Your task to perform on an android device: Open the calendar and show me this week's events Image 0: 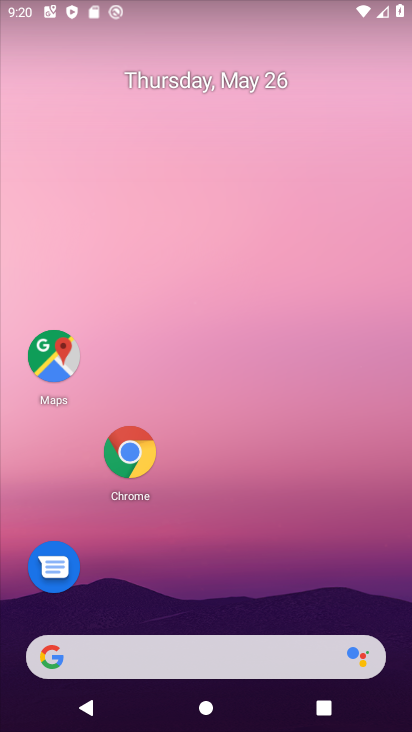
Step 0: press home button
Your task to perform on an android device: Open the calendar and show me this week's events Image 1: 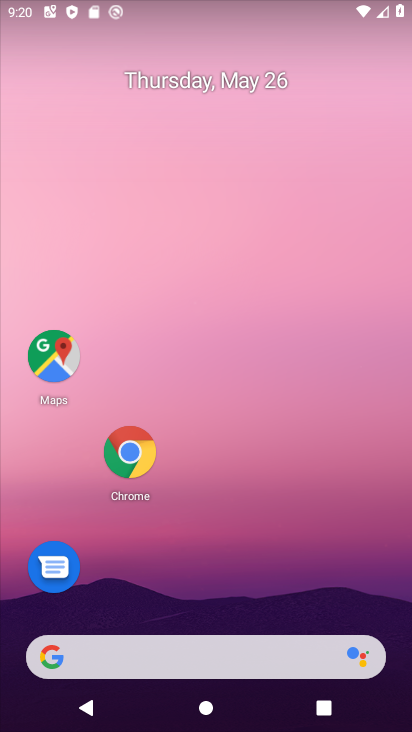
Step 1: drag from (136, 652) to (305, 91)
Your task to perform on an android device: Open the calendar and show me this week's events Image 2: 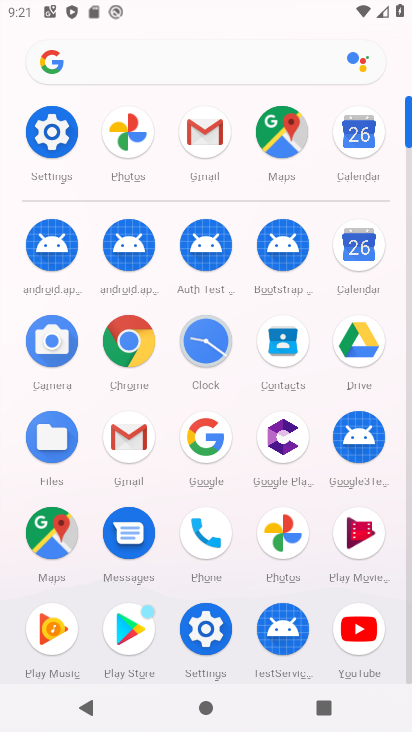
Step 2: click (353, 261)
Your task to perform on an android device: Open the calendar and show me this week's events Image 3: 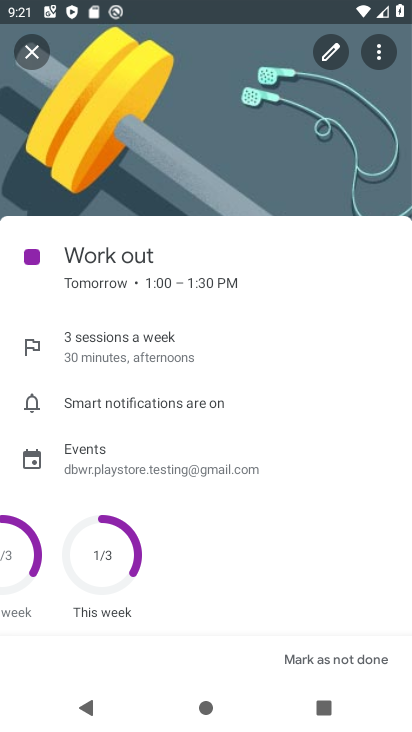
Step 3: click (28, 52)
Your task to perform on an android device: Open the calendar and show me this week's events Image 4: 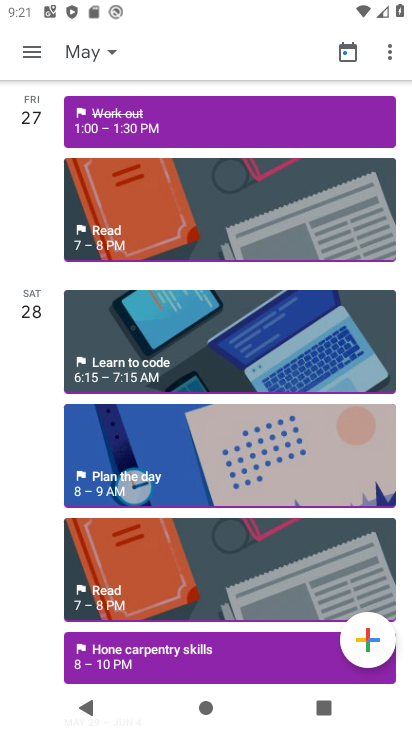
Step 4: click (85, 56)
Your task to perform on an android device: Open the calendar and show me this week's events Image 5: 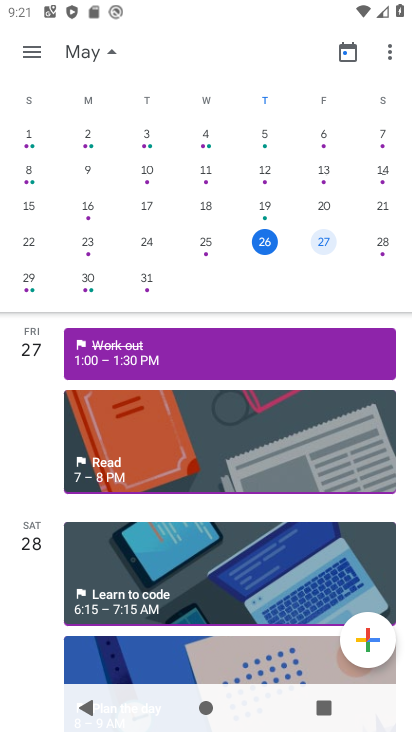
Step 5: click (266, 246)
Your task to perform on an android device: Open the calendar and show me this week's events Image 6: 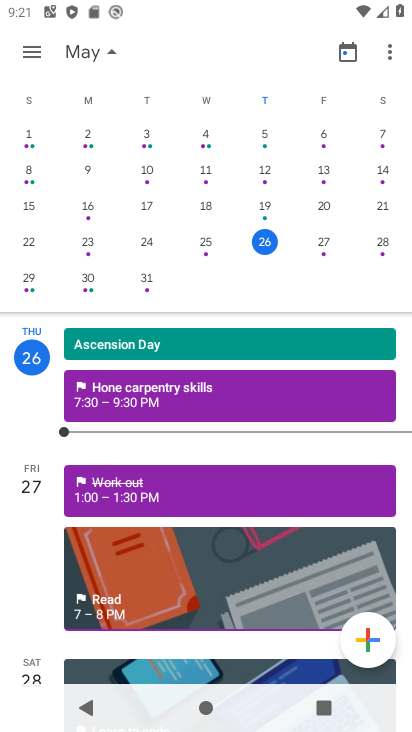
Step 6: click (22, 56)
Your task to perform on an android device: Open the calendar and show me this week's events Image 7: 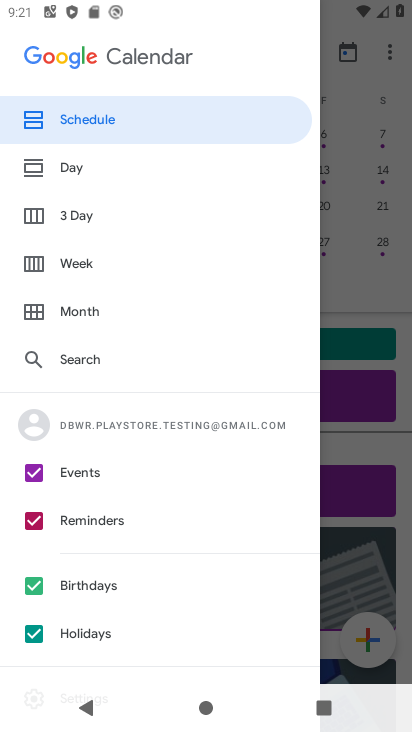
Step 7: click (81, 264)
Your task to perform on an android device: Open the calendar and show me this week's events Image 8: 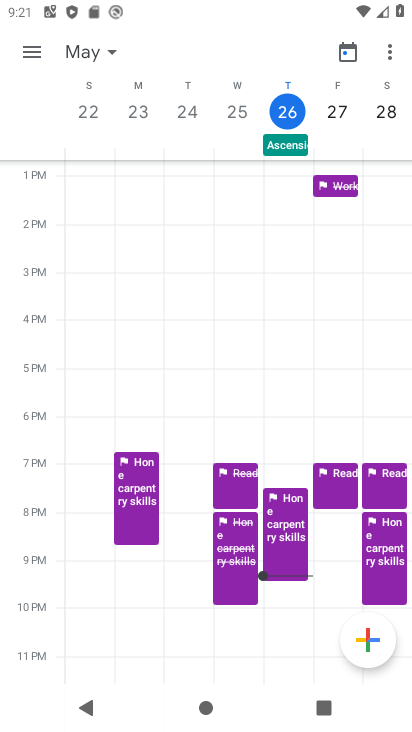
Step 8: click (37, 54)
Your task to perform on an android device: Open the calendar and show me this week's events Image 9: 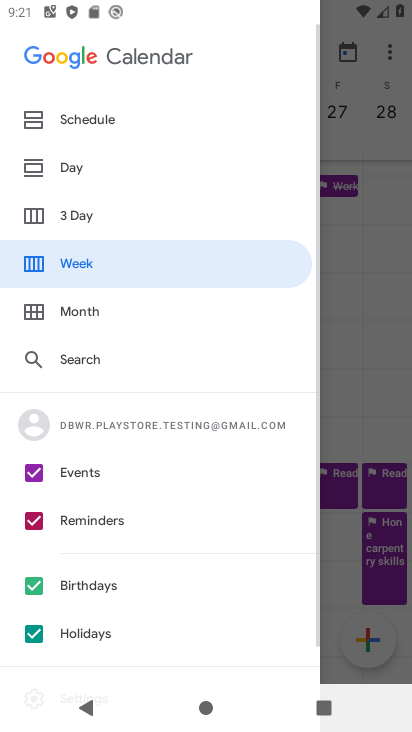
Step 9: click (97, 120)
Your task to perform on an android device: Open the calendar and show me this week's events Image 10: 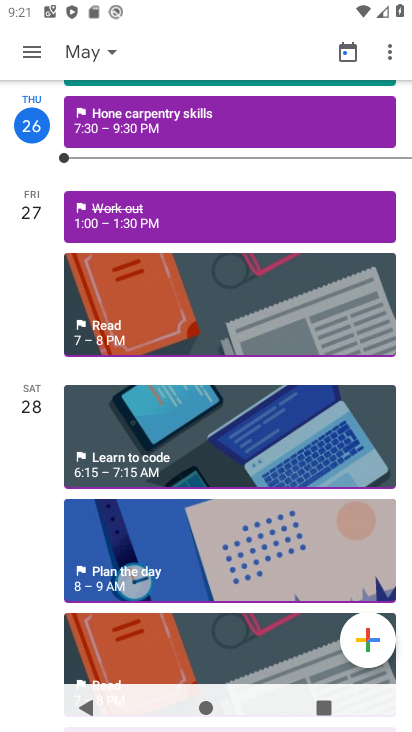
Step 10: click (165, 222)
Your task to perform on an android device: Open the calendar and show me this week's events Image 11: 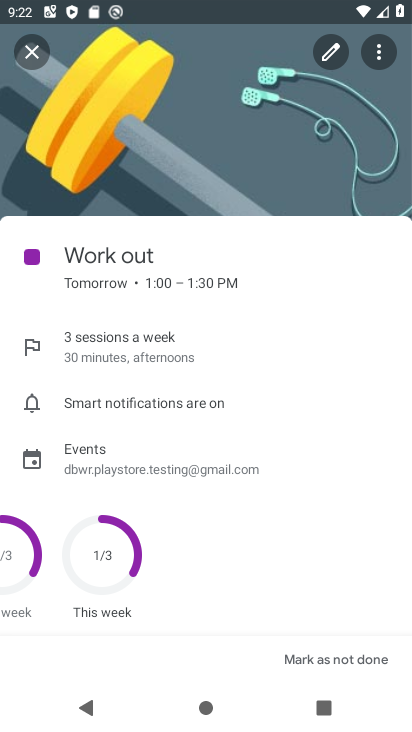
Step 11: task complete